Your task to perform on an android device: Search for apple airpods on target, select the first entry, and add it to the cart. Image 0: 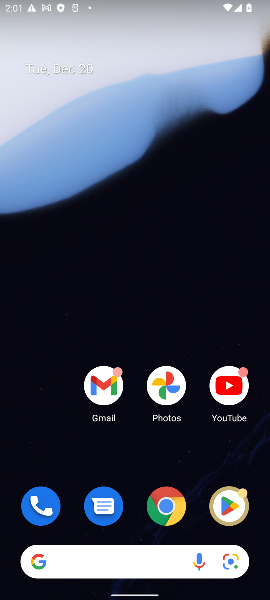
Step 0: click (163, 501)
Your task to perform on an android device: Search for apple airpods on target, select the first entry, and add it to the cart. Image 1: 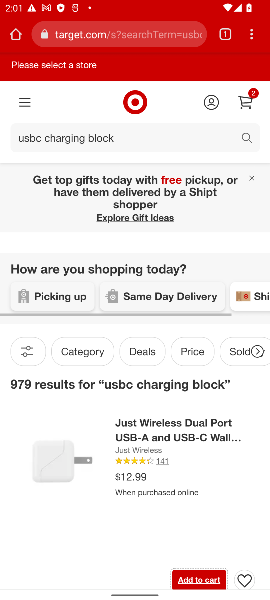
Step 1: click (137, 34)
Your task to perform on an android device: Search for apple airpods on target, select the first entry, and add it to the cart. Image 2: 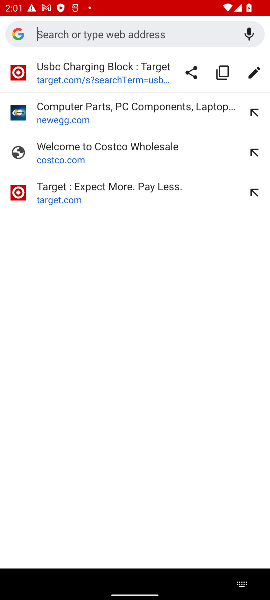
Step 2: click (79, 192)
Your task to perform on an android device: Search for apple airpods on target, select the first entry, and add it to the cart. Image 3: 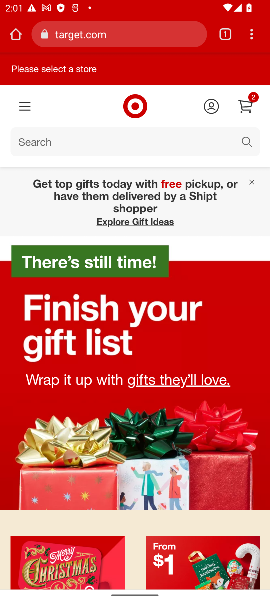
Step 3: click (112, 144)
Your task to perform on an android device: Search for apple airpods on target, select the first entry, and add it to the cart. Image 4: 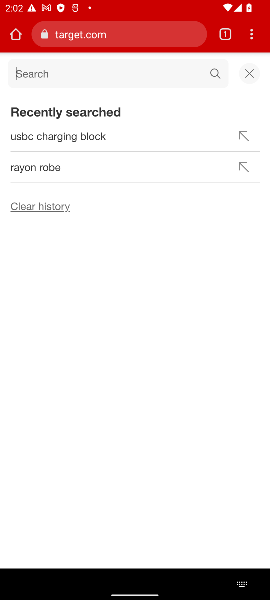
Step 4: type "APPLE AIRPODS"
Your task to perform on an android device: Search for apple airpods on target, select the first entry, and add it to the cart. Image 5: 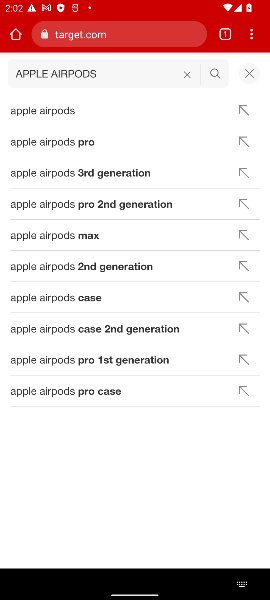
Step 5: click (58, 112)
Your task to perform on an android device: Search for apple airpods on target, select the first entry, and add it to the cart. Image 6: 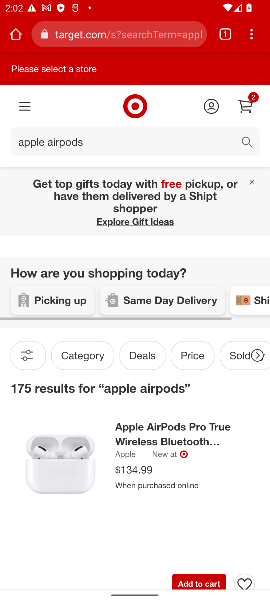
Step 6: click (190, 583)
Your task to perform on an android device: Search for apple airpods on target, select the first entry, and add it to the cart. Image 7: 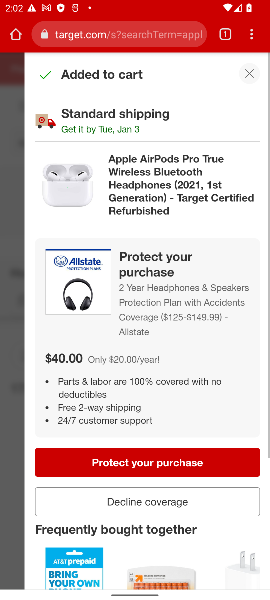
Step 7: click (139, 498)
Your task to perform on an android device: Search for apple airpods on target, select the first entry, and add it to the cart. Image 8: 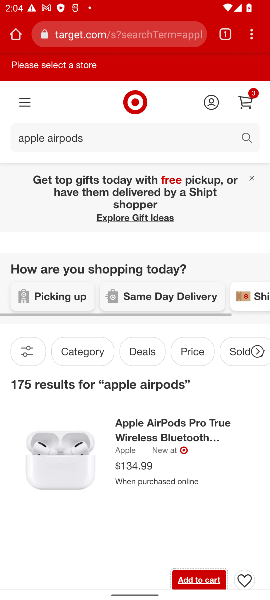
Step 8: click (193, 583)
Your task to perform on an android device: Search for apple airpods on target, select the first entry, and add it to the cart. Image 9: 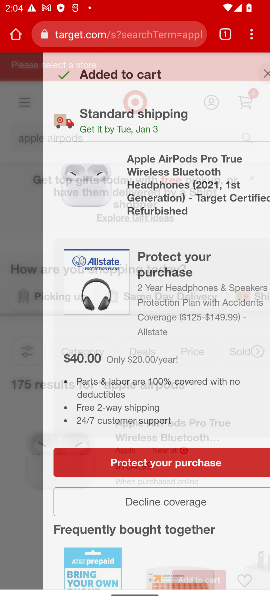
Step 9: task complete